Your task to perform on an android device: change the clock style Image 0: 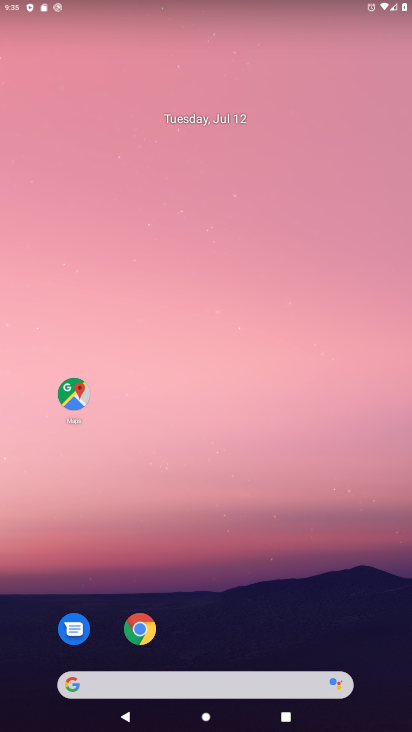
Step 0: drag from (378, 634) to (363, 119)
Your task to perform on an android device: change the clock style Image 1: 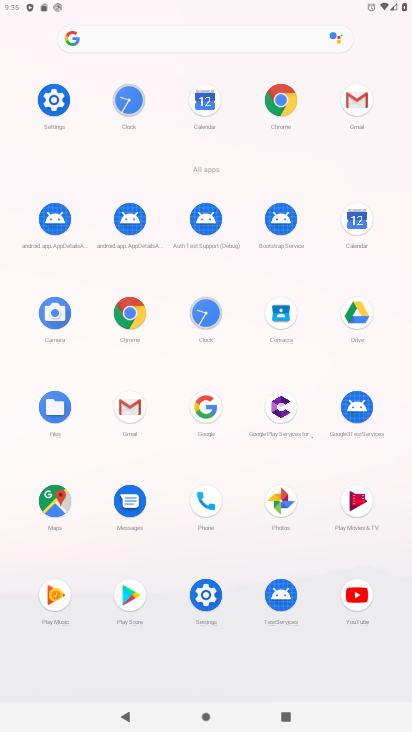
Step 1: click (205, 313)
Your task to perform on an android device: change the clock style Image 2: 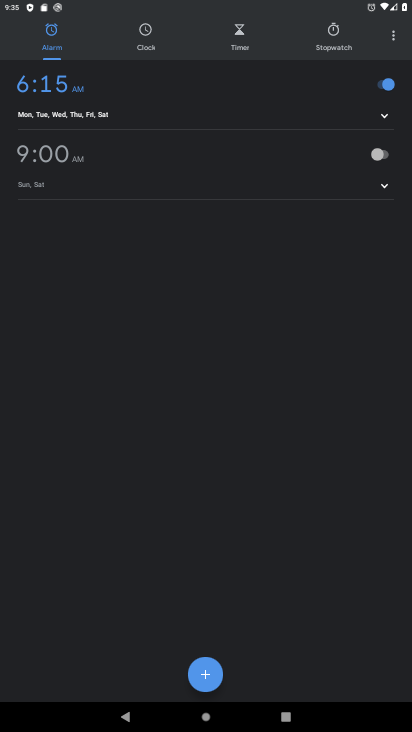
Step 2: click (392, 45)
Your task to perform on an android device: change the clock style Image 3: 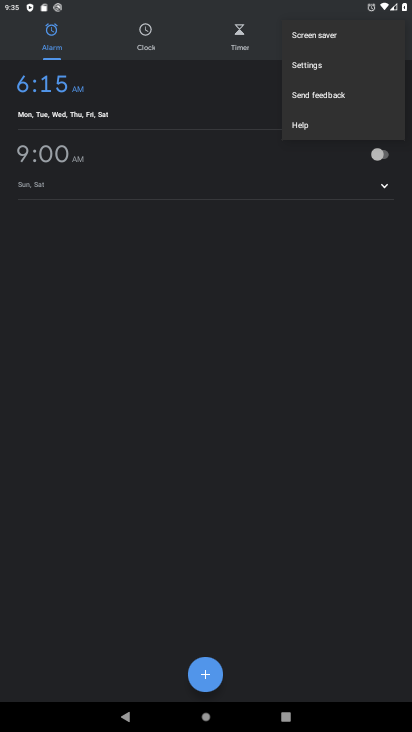
Step 3: click (304, 67)
Your task to perform on an android device: change the clock style Image 4: 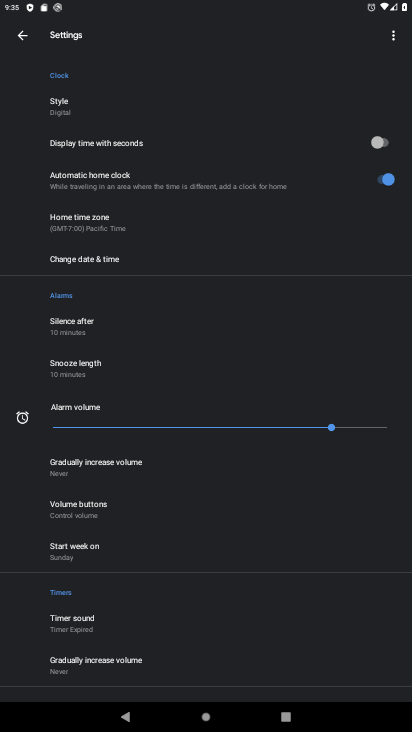
Step 4: click (55, 111)
Your task to perform on an android device: change the clock style Image 5: 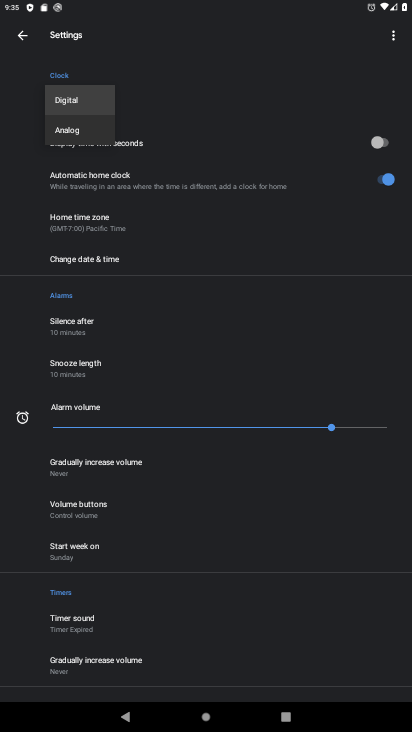
Step 5: click (70, 134)
Your task to perform on an android device: change the clock style Image 6: 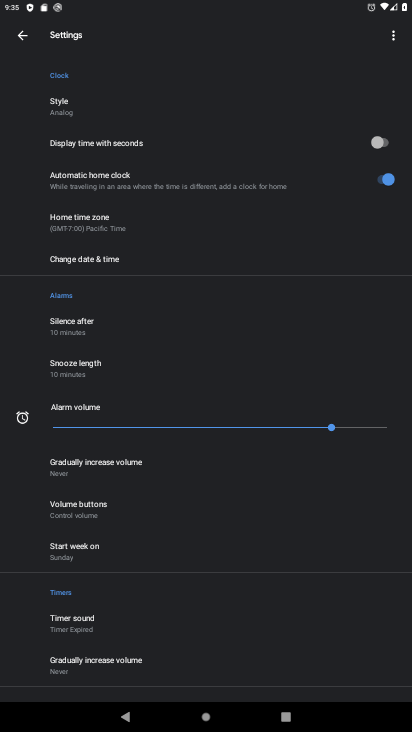
Step 6: task complete